Your task to perform on an android device: Clear the shopping cart on ebay. Search for "macbook pro 13 inch" on ebay, select the first entry, add it to the cart, then select checkout. Image 0: 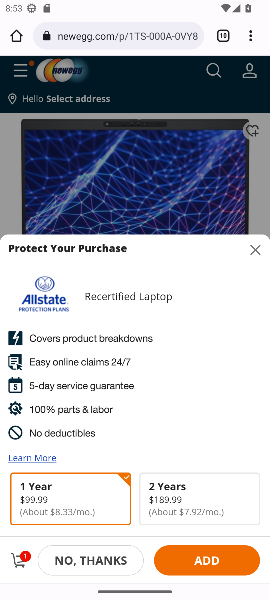
Step 0: press home button
Your task to perform on an android device: Clear the shopping cart on ebay. Search for "macbook pro 13 inch" on ebay, select the first entry, add it to the cart, then select checkout. Image 1: 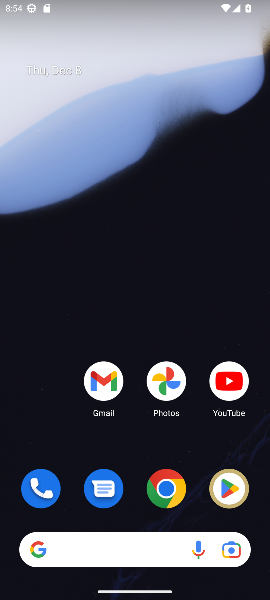
Step 1: drag from (102, 544) to (102, 153)
Your task to perform on an android device: Clear the shopping cart on ebay. Search for "macbook pro 13 inch" on ebay, select the first entry, add it to the cart, then select checkout. Image 2: 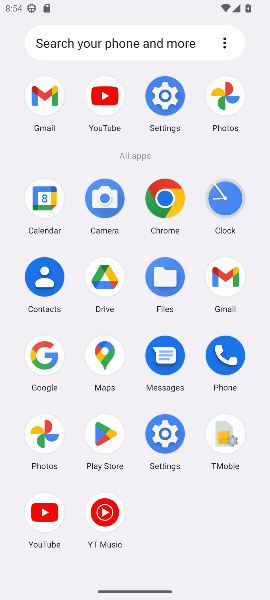
Step 2: click (50, 355)
Your task to perform on an android device: Clear the shopping cart on ebay. Search for "macbook pro 13 inch" on ebay, select the first entry, add it to the cart, then select checkout. Image 3: 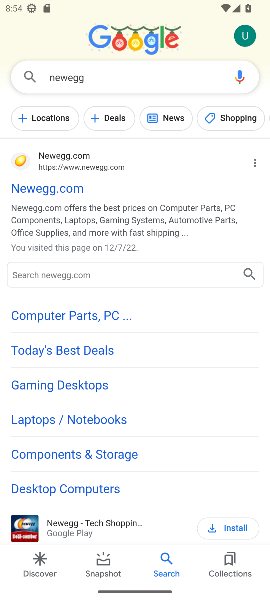
Step 3: click (63, 79)
Your task to perform on an android device: Clear the shopping cart on ebay. Search for "macbook pro 13 inch" on ebay, select the first entry, add it to the cart, then select checkout. Image 4: 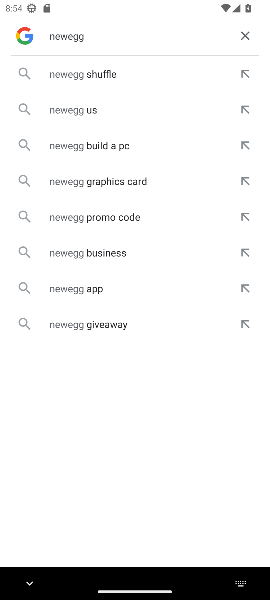
Step 4: click (245, 36)
Your task to perform on an android device: Clear the shopping cart on ebay. Search for "macbook pro 13 inch" on ebay, select the first entry, add it to the cart, then select checkout. Image 5: 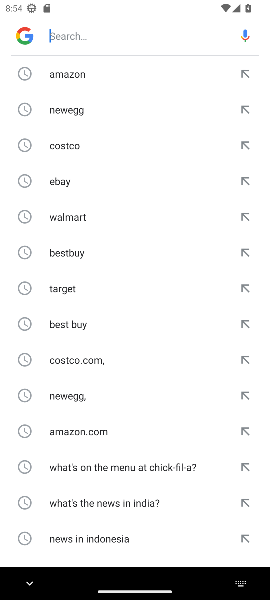
Step 5: click (62, 182)
Your task to perform on an android device: Clear the shopping cart on ebay. Search for "macbook pro 13 inch" on ebay, select the first entry, add it to the cart, then select checkout. Image 6: 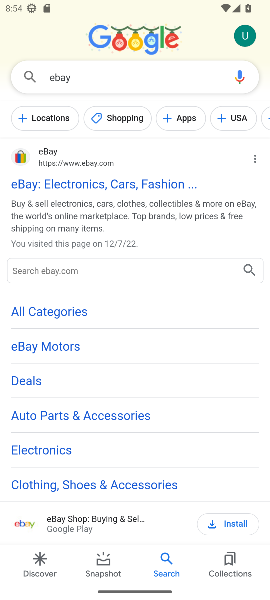
Step 6: click (62, 182)
Your task to perform on an android device: Clear the shopping cart on ebay. Search for "macbook pro 13 inch" on ebay, select the first entry, add it to the cart, then select checkout. Image 7: 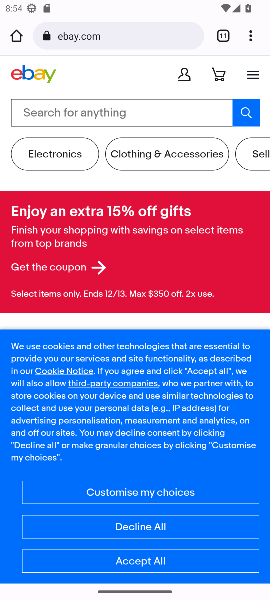
Step 7: click (50, 114)
Your task to perform on an android device: Clear the shopping cart on ebay. Search for "macbook pro 13 inch" on ebay, select the first entry, add it to the cart, then select checkout. Image 8: 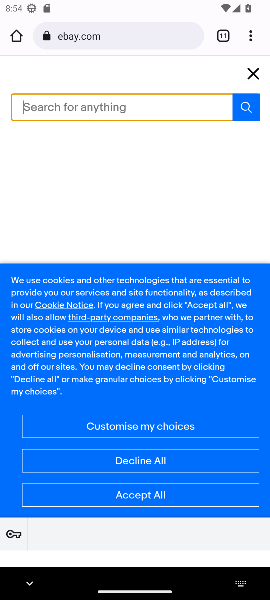
Step 8: type "macbook pro 13 inch"
Your task to perform on an android device: Clear the shopping cart on ebay. Search for "macbook pro 13 inch" on ebay, select the first entry, add it to the cart, then select checkout. Image 9: 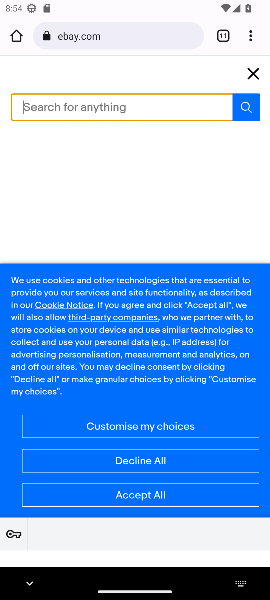
Step 9: click (242, 113)
Your task to perform on an android device: Clear the shopping cart on ebay. Search for "macbook pro 13 inch" on ebay, select the first entry, add it to the cart, then select checkout. Image 10: 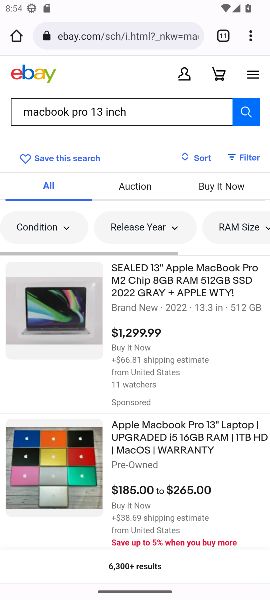
Step 10: click (151, 294)
Your task to perform on an android device: Clear the shopping cart on ebay. Search for "macbook pro 13 inch" on ebay, select the first entry, add it to the cart, then select checkout. Image 11: 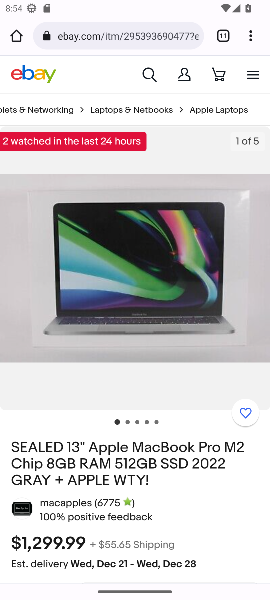
Step 11: drag from (156, 513) to (146, 218)
Your task to perform on an android device: Clear the shopping cart on ebay. Search for "macbook pro 13 inch" on ebay, select the first entry, add it to the cart, then select checkout. Image 12: 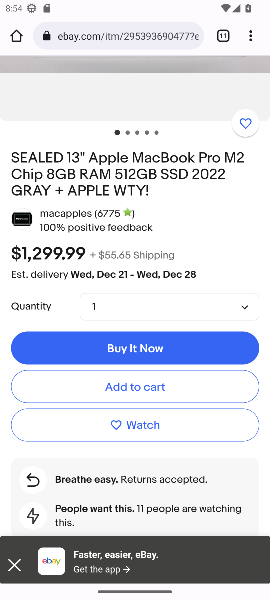
Step 12: click (143, 387)
Your task to perform on an android device: Clear the shopping cart on ebay. Search for "macbook pro 13 inch" on ebay, select the first entry, add it to the cart, then select checkout. Image 13: 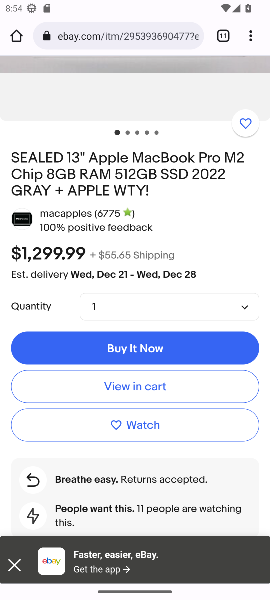
Step 13: click (142, 387)
Your task to perform on an android device: Clear the shopping cart on ebay. Search for "macbook pro 13 inch" on ebay, select the first entry, add it to the cart, then select checkout. Image 14: 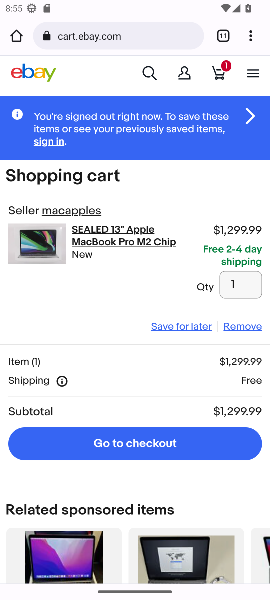
Step 14: click (148, 441)
Your task to perform on an android device: Clear the shopping cart on ebay. Search for "macbook pro 13 inch" on ebay, select the first entry, add it to the cart, then select checkout. Image 15: 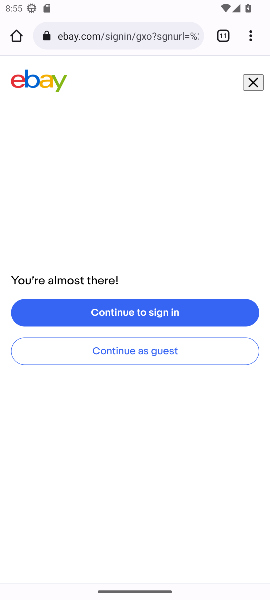
Step 15: task complete